Your task to perform on an android device: check battery use Image 0: 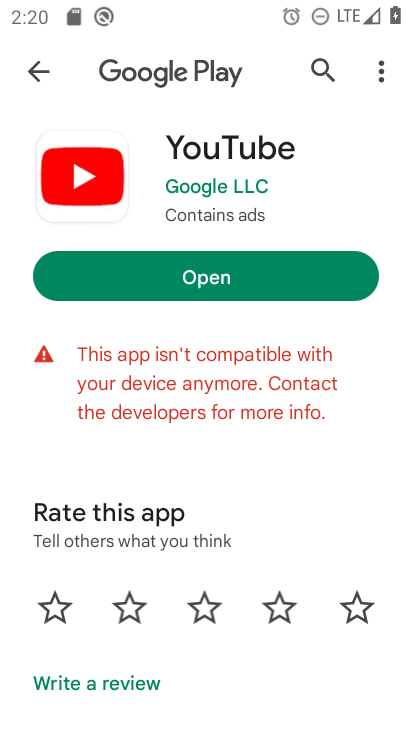
Step 0: press home button
Your task to perform on an android device: check battery use Image 1: 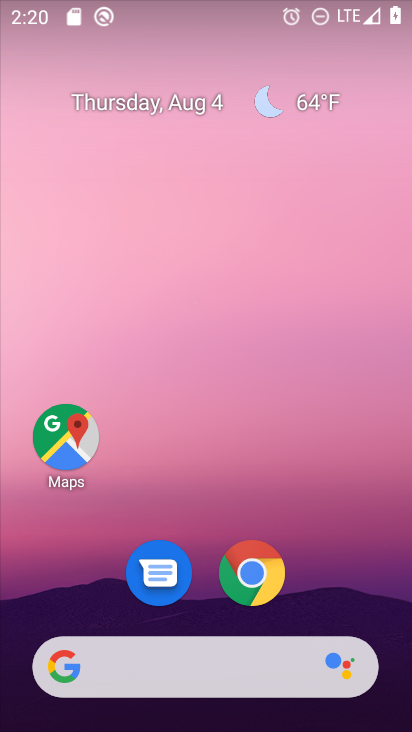
Step 1: drag from (344, 585) to (373, 53)
Your task to perform on an android device: check battery use Image 2: 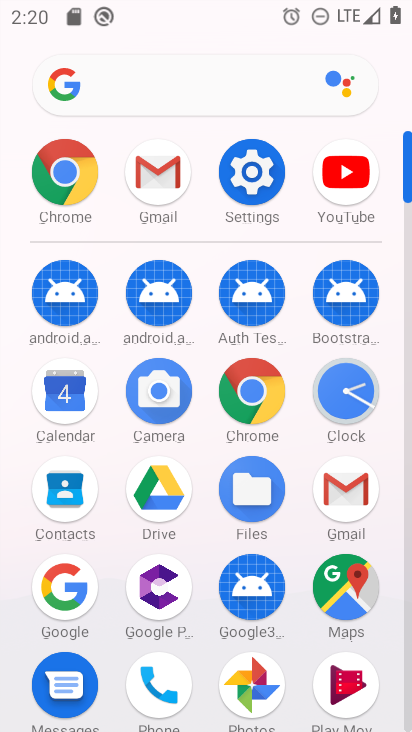
Step 2: click (252, 169)
Your task to perform on an android device: check battery use Image 3: 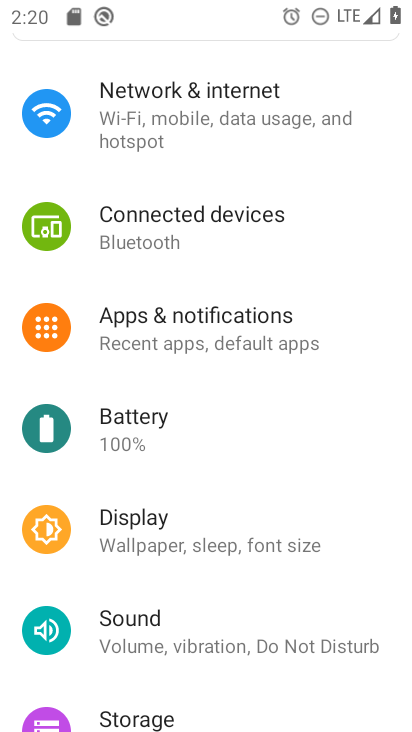
Step 3: click (145, 409)
Your task to perform on an android device: check battery use Image 4: 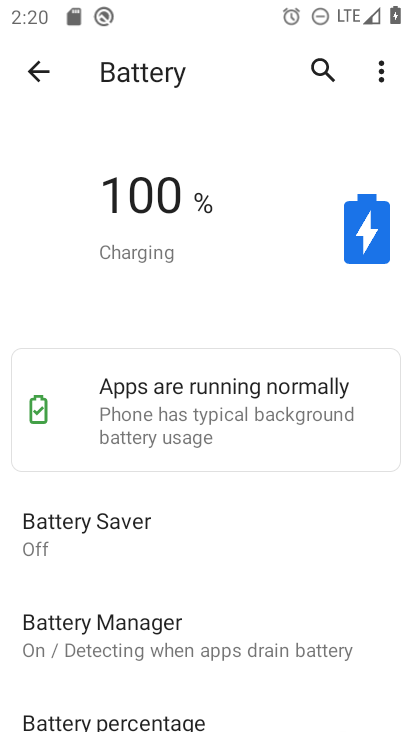
Step 4: click (385, 65)
Your task to perform on an android device: check battery use Image 5: 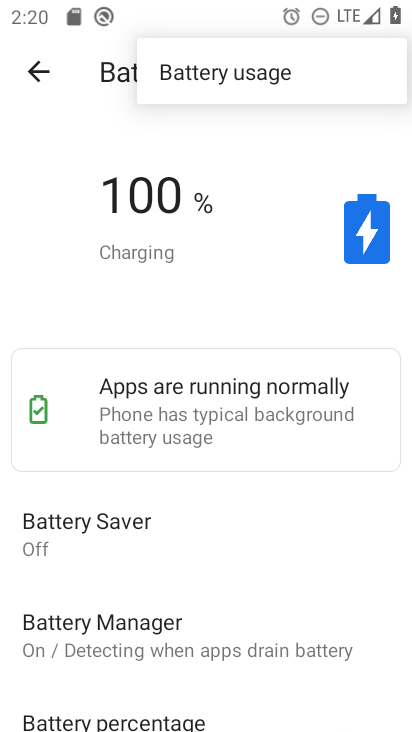
Step 5: click (288, 75)
Your task to perform on an android device: check battery use Image 6: 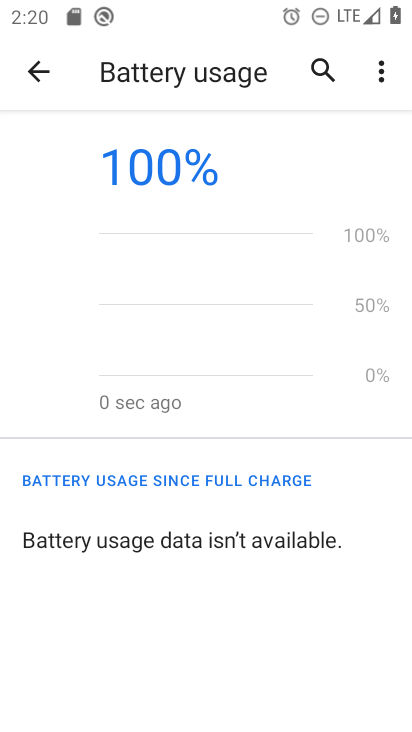
Step 6: task complete